Your task to perform on an android device: open device folders in google photos Image 0: 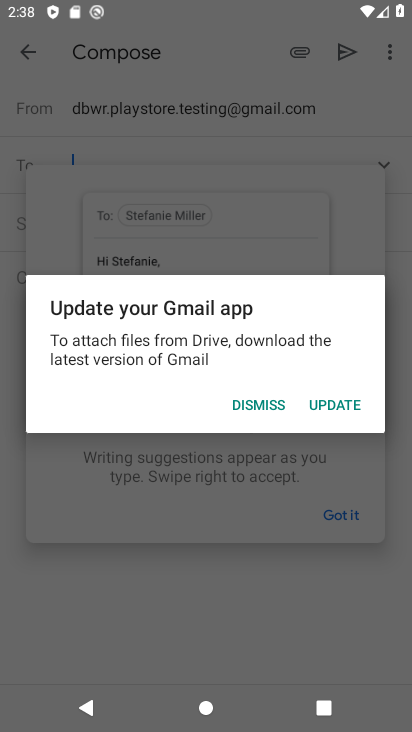
Step 0: press back button
Your task to perform on an android device: open device folders in google photos Image 1: 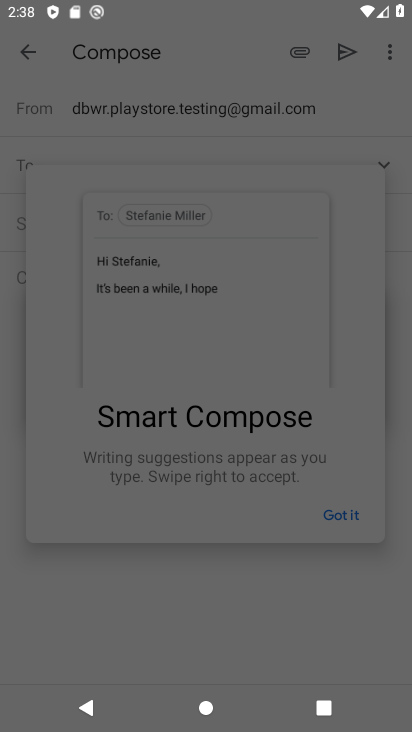
Step 1: press home button
Your task to perform on an android device: open device folders in google photos Image 2: 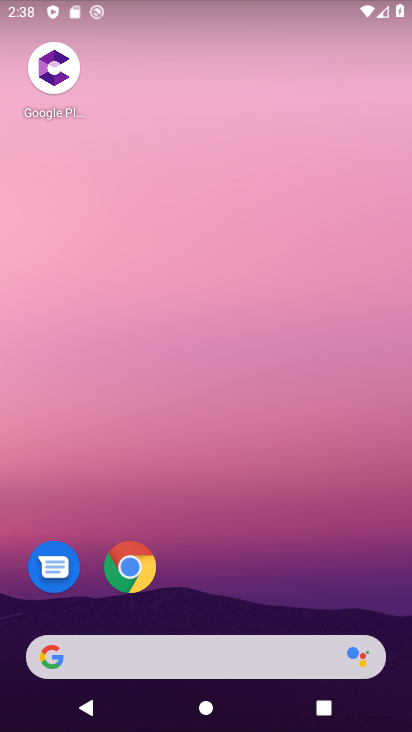
Step 2: drag from (326, 538) to (264, 13)
Your task to perform on an android device: open device folders in google photos Image 3: 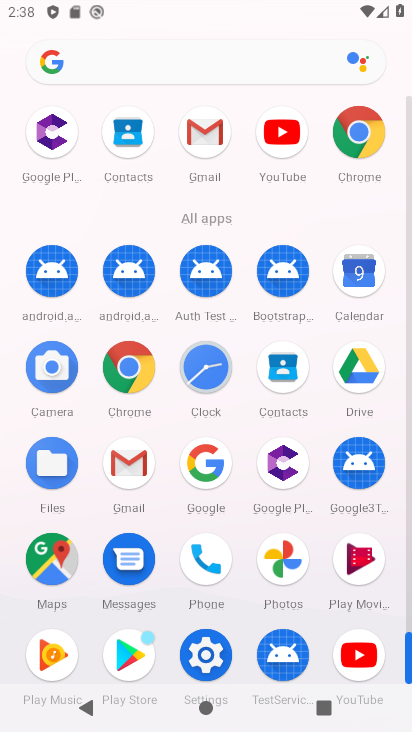
Step 3: drag from (8, 562) to (15, 310)
Your task to perform on an android device: open device folders in google photos Image 4: 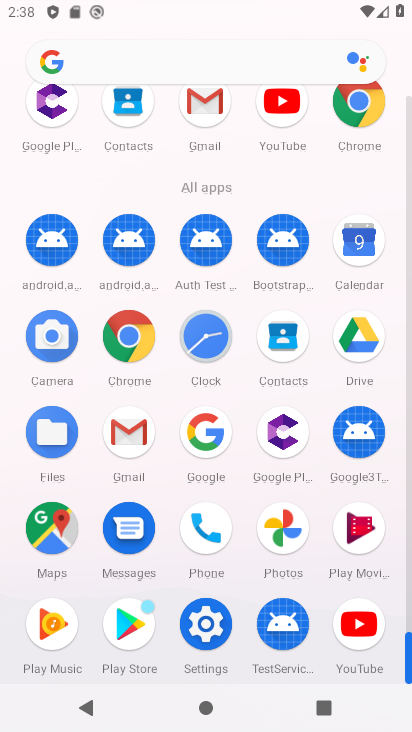
Step 4: click (283, 527)
Your task to perform on an android device: open device folders in google photos Image 5: 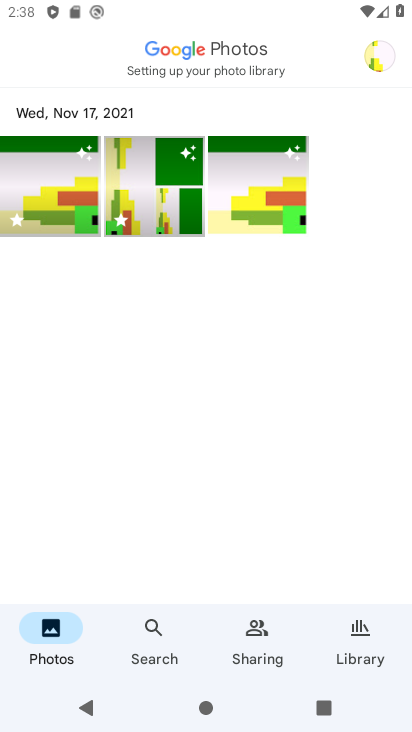
Step 5: click (362, 625)
Your task to perform on an android device: open device folders in google photos Image 6: 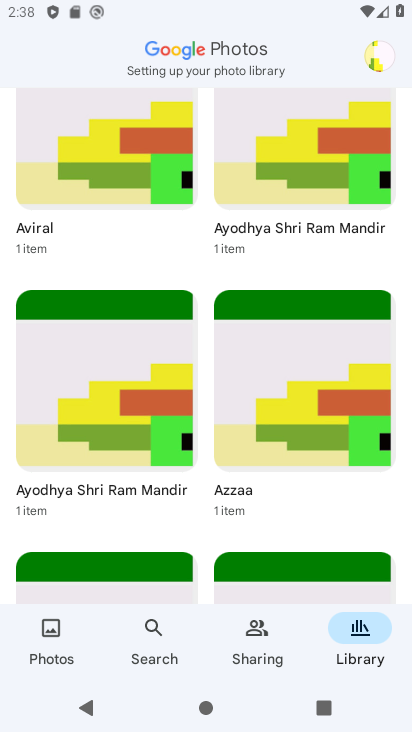
Step 6: click (238, 644)
Your task to perform on an android device: open device folders in google photos Image 7: 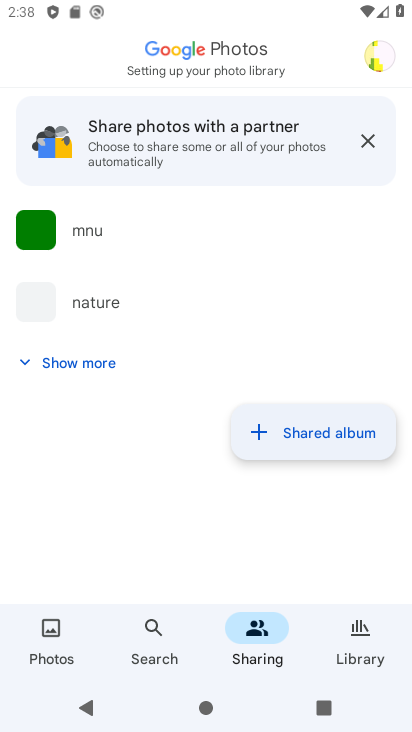
Step 7: click (378, 54)
Your task to perform on an android device: open device folders in google photos Image 8: 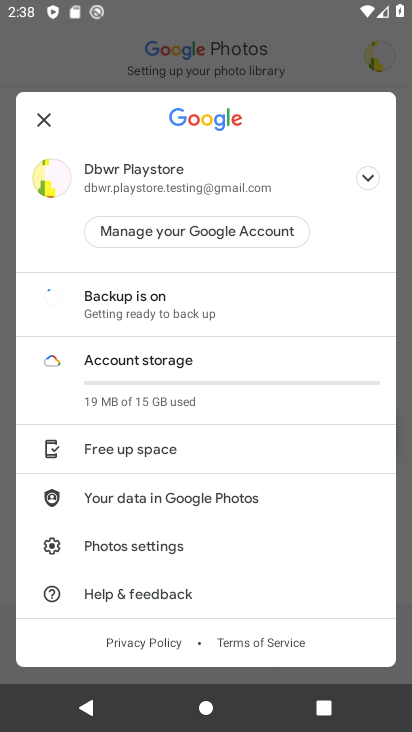
Step 8: click (134, 539)
Your task to perform on an android device: open device folders in google photos Image 9: 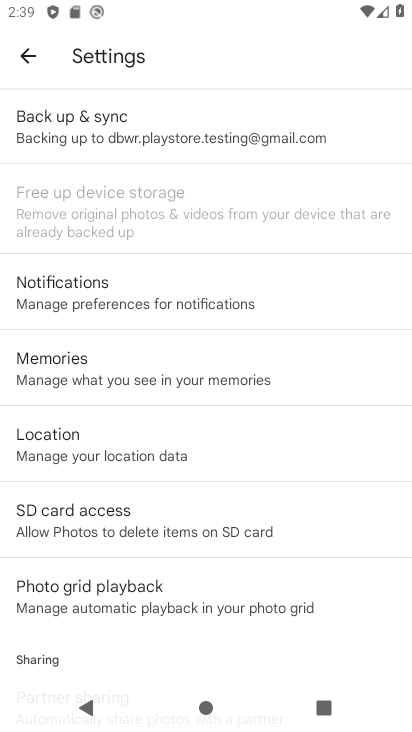
Step 9: drag from (191, 496) to (259, 121)
Your task to perform on an android device: open device folders in google photos Image 10: 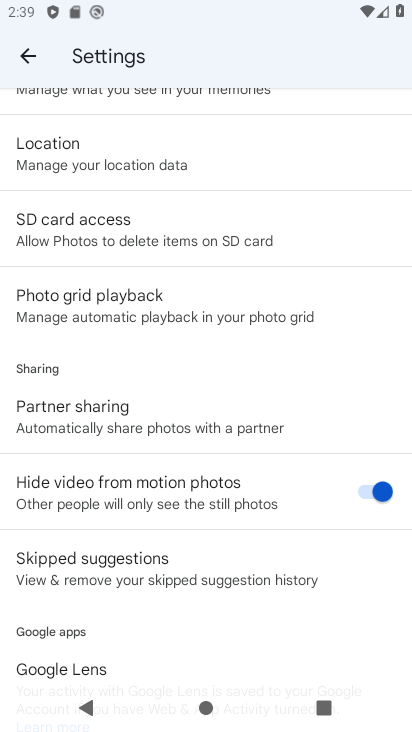
Step 10: drag from (309, 558) to (300, 138)
Your task to perform on an android device: open device folders in google photos Image 11: 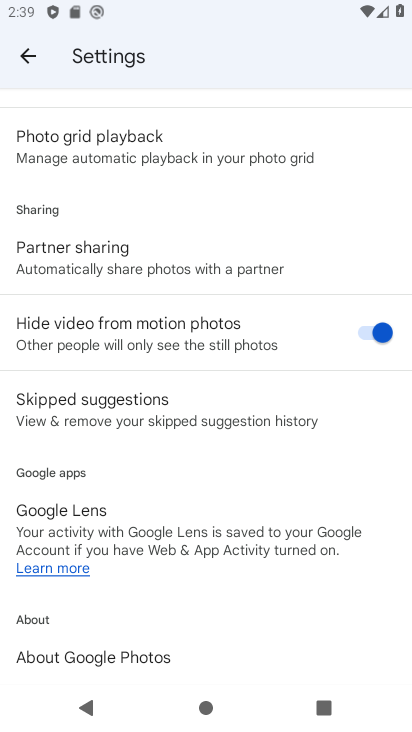
Step 11: drag from (163, 598) to (163, 162)
Your task to perform on an android device: open device folders in google photos Image 12: 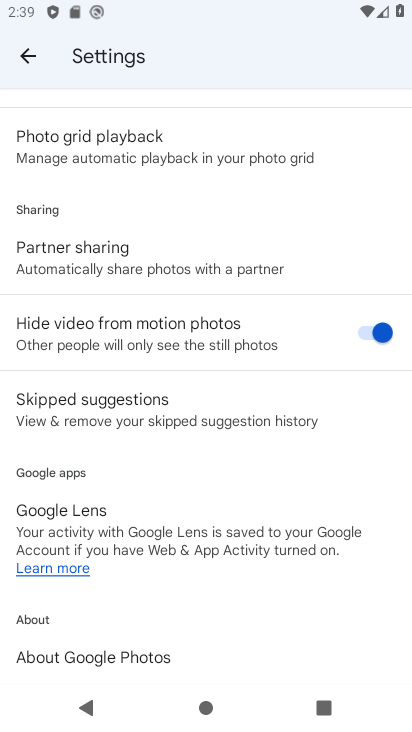
Step 12: drag from (124, 517) to (154, 133)
Your task to perform on an android device: open device folders in google photos Image 13: 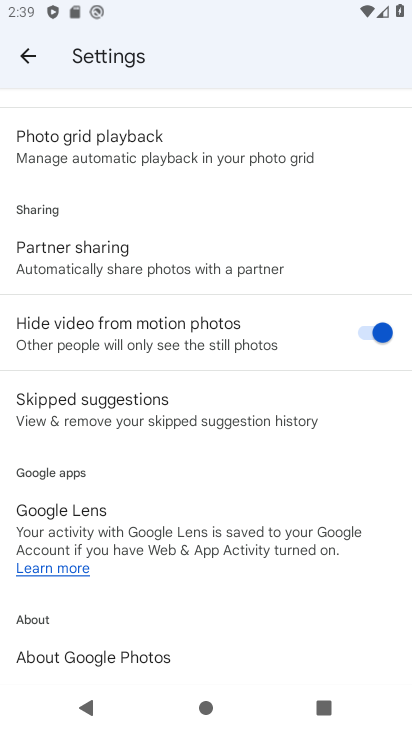
Step 13: drag from (178, 598) to (209, 243)
Your task to perform on an android device: open device folders in google photos Image 14: 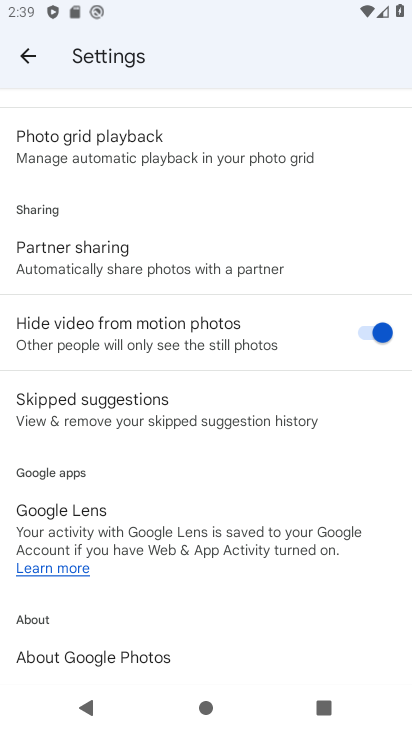
Step 14: drag from (233, 184) to (216, 608)
Your task to perform on an android device: open device folders in google photos Image 15: 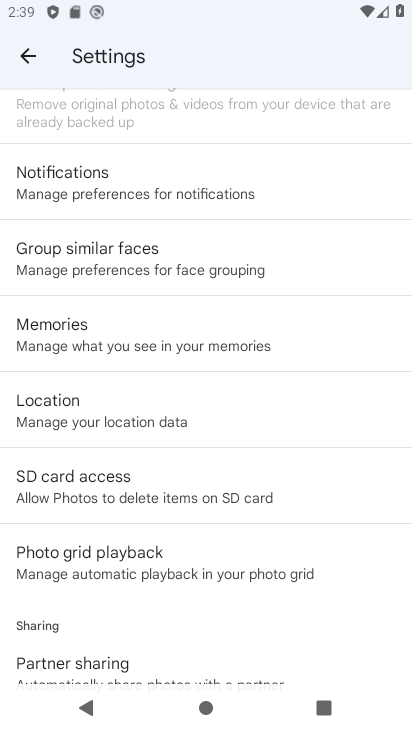
Step 15: drag from (234, 498) to (233, 590)
Your task to perform on an android device: open device folders in google photos Image 16: 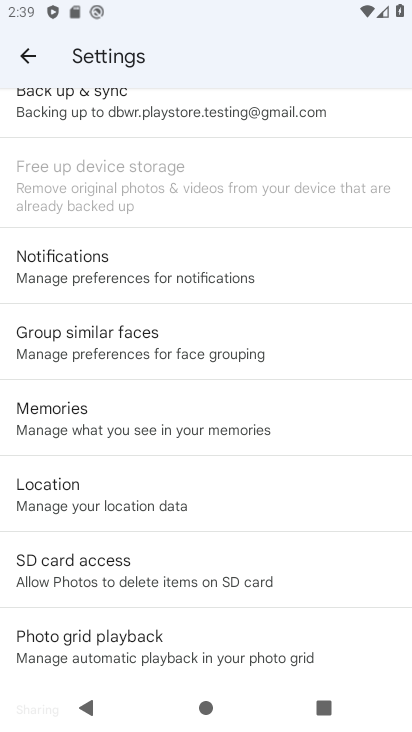
Step 16: drag from (220, 216) to (203, 635)
Your task to perform on an android device: open device folders in google photos Image 17: 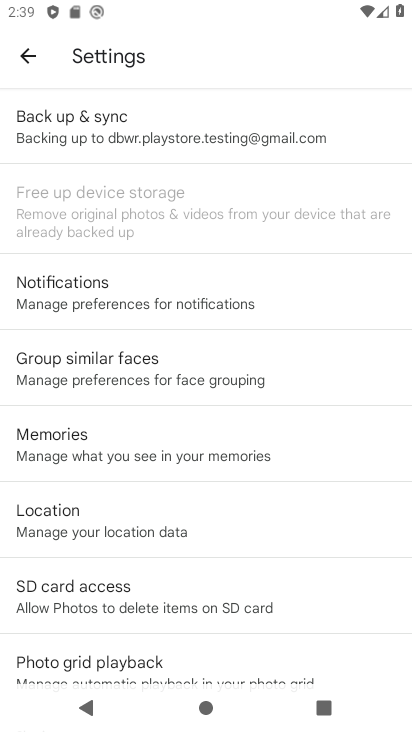
Step 17: drag from (188, 269) to (156, 605)
Your task to perform on an android device: open device folders in google photos Image 18: 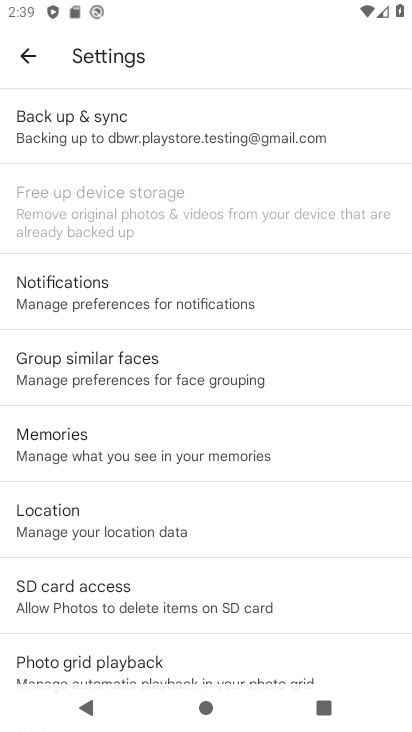
Step 18: drag from (198, 151) to (182, 552)
Your task to perform on an android device: open device folders in google photos Image 19: 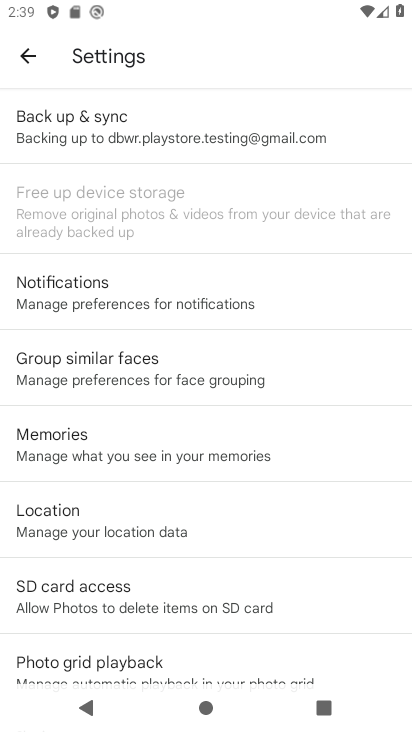
Step 19: drag from (214, 228) to (215, 610)
Your task to perform on an android device: open device folders in google photos Image 20: 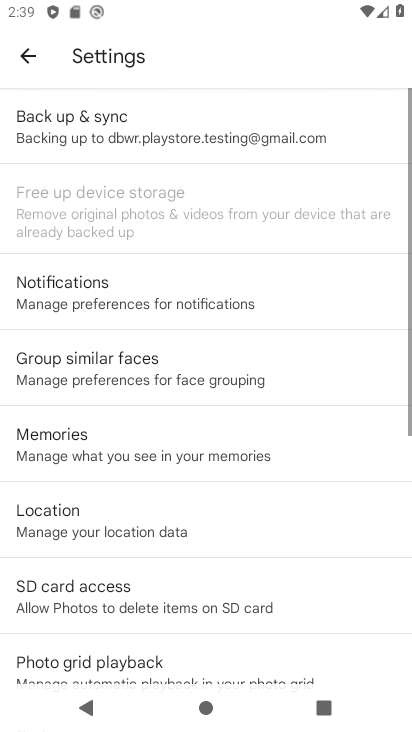
Step 20: click (202, 125)
Your task to perform on an android device: open device folders in google photos Image 21: 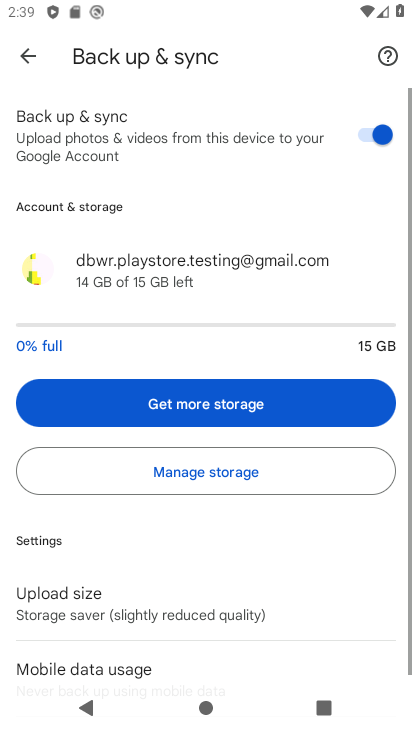
Step 21: task complete